Your task to perform on an android device: What's the weather going to be tomorrow? Image 0: 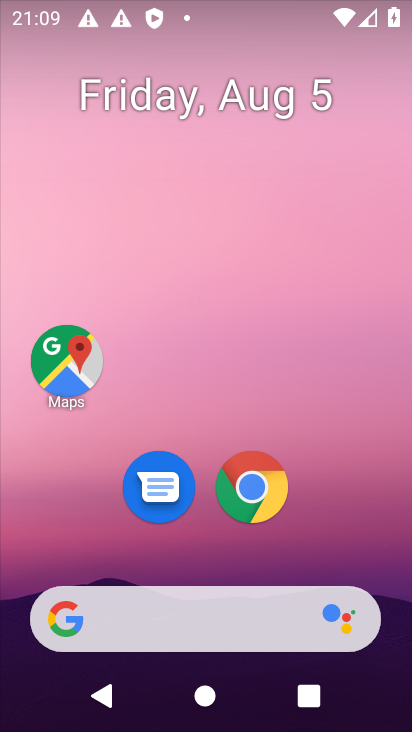
Step 0: click (206, 624)
Your task to perform on an android device: What's the weather going to be tomorrow? Image 1: 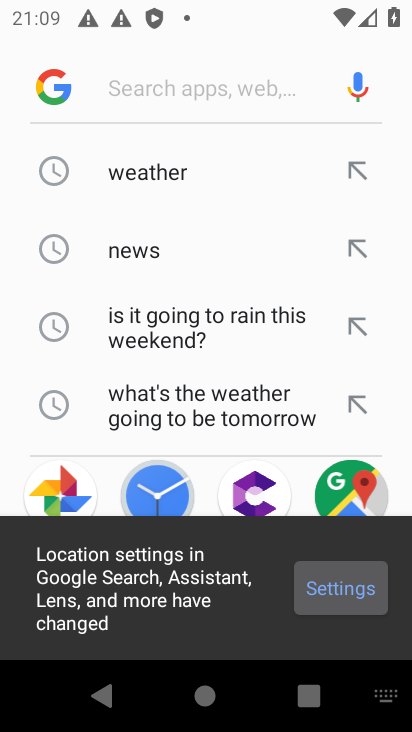
Step 1: click (143, 184)
Your task to perform on an android device: What's the weather going to be tomorrow? Image 2: 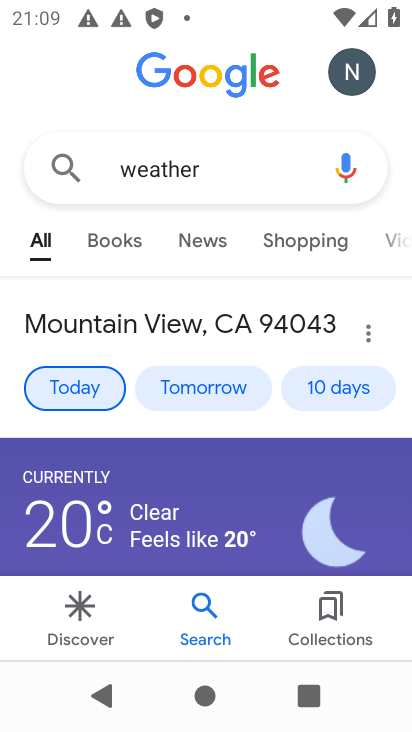
Step 2: click (205, 377)
Your task to perform on an android device: What's the weather going to be tomorrow? Image 3: 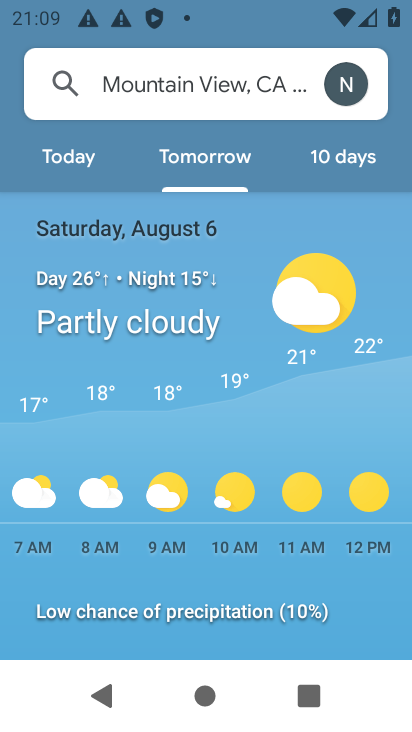
Step 3: task complete